Your task to perform on an android device: Check the weather Image 0: 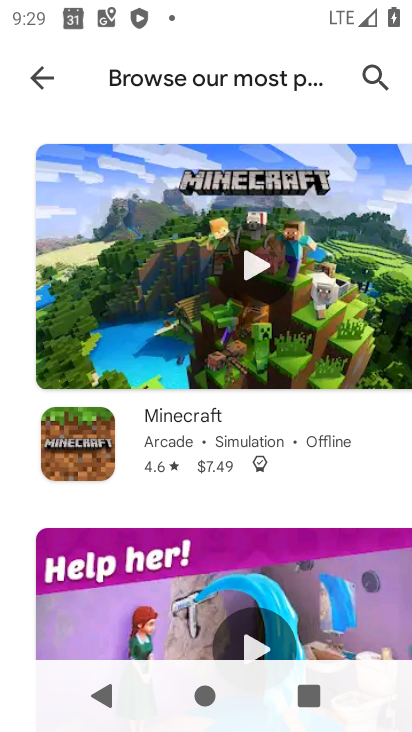
Step 0: press home button
Your task to perform on an android device: Check the weather Image 1: 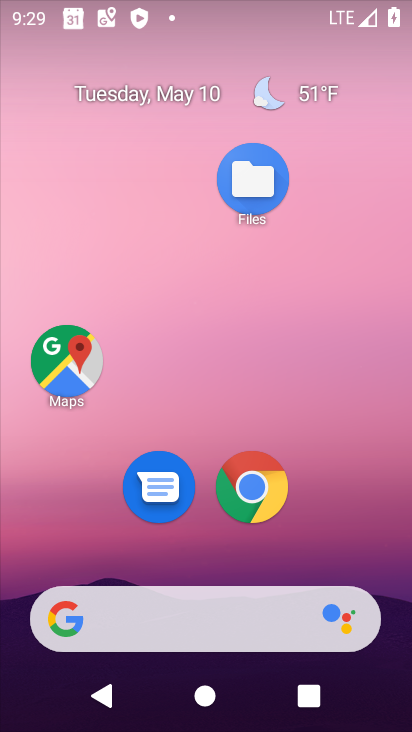
Step 1: drag from (207, 552) to (217, 83)
Your task to perform on an android device: Check the weather Image 2: 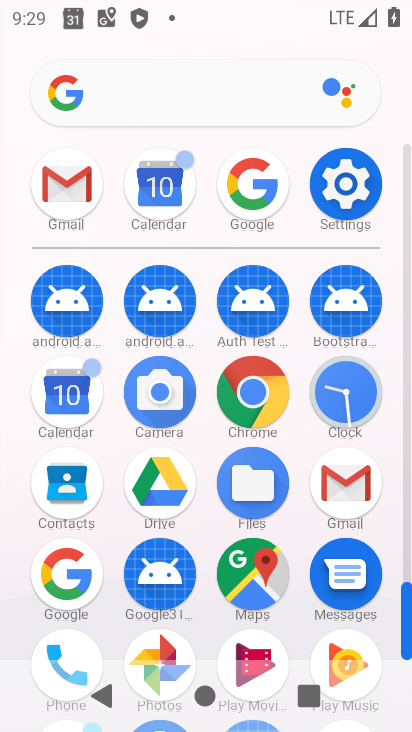
Step 2: click (261, 173)
Your task to perform on an android device: Check the weather Image 3: 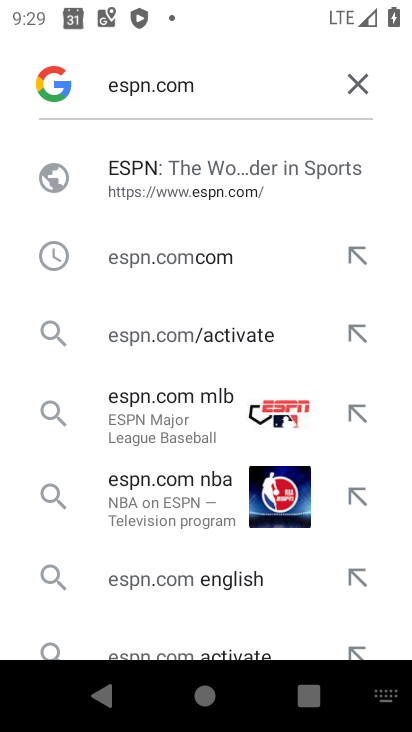
Step 3: click (350, 79)
Your task to perform on an android device: Check the weather Image 4: 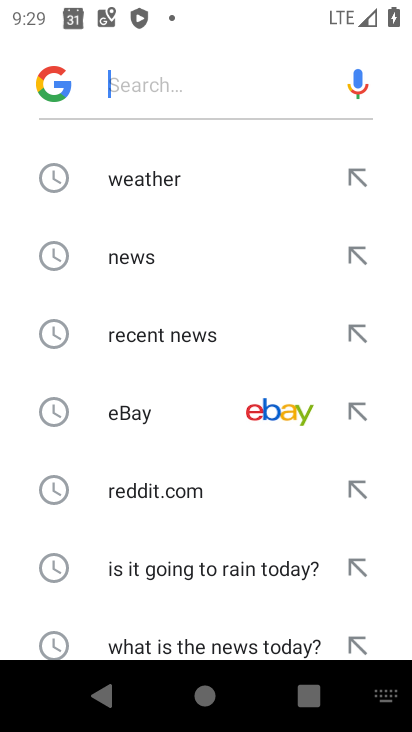
Step 4: click (172, 177)
Your task to perform on an android device: Check the weather Image 5: 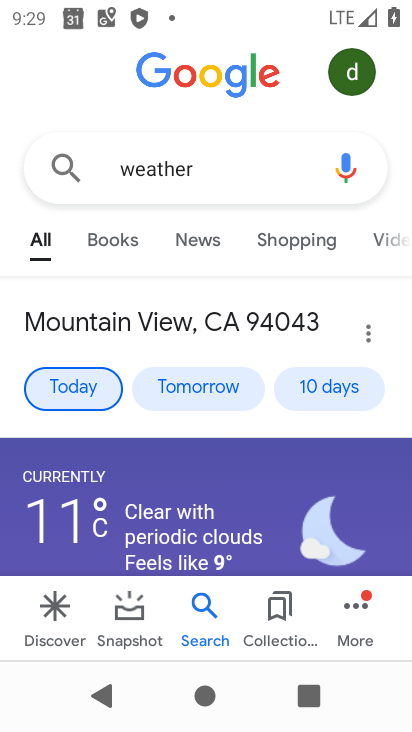
Step 5: task complete